Your task to perform on an android device: Open privacy settings Image 0: 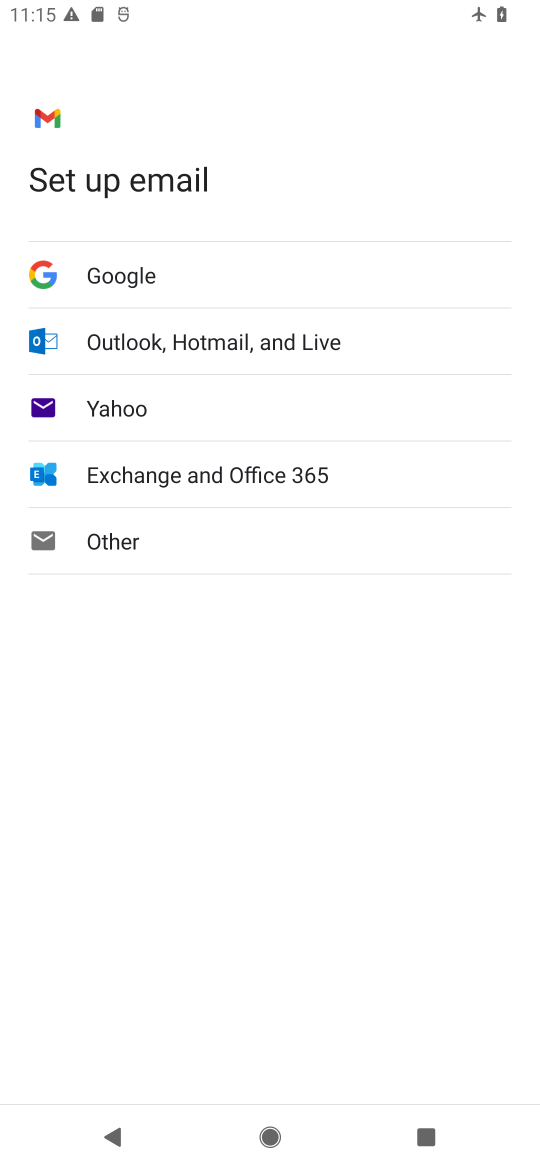
Step 0: press home button
Your task to perform on an android device: Open privacy settings Image 1: 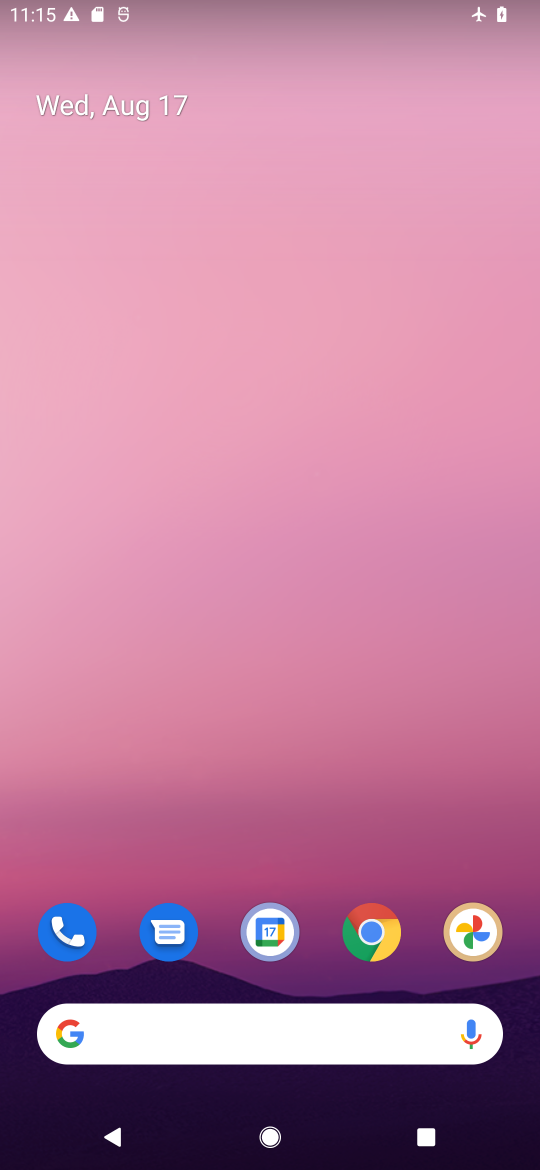
Step 1: drag from (245, 857) to (237, 178)
Your task to perform on an android device: Open privacy settings Image 2: 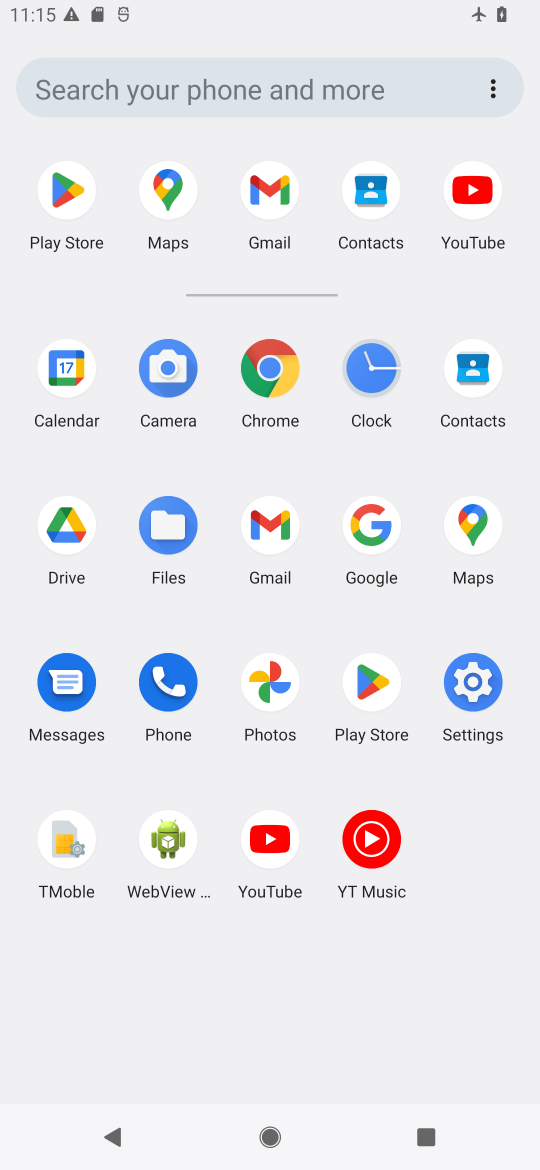
Step 2: click (456, 673)
Your task to perform on an android device: Open privacy settings Image 3: 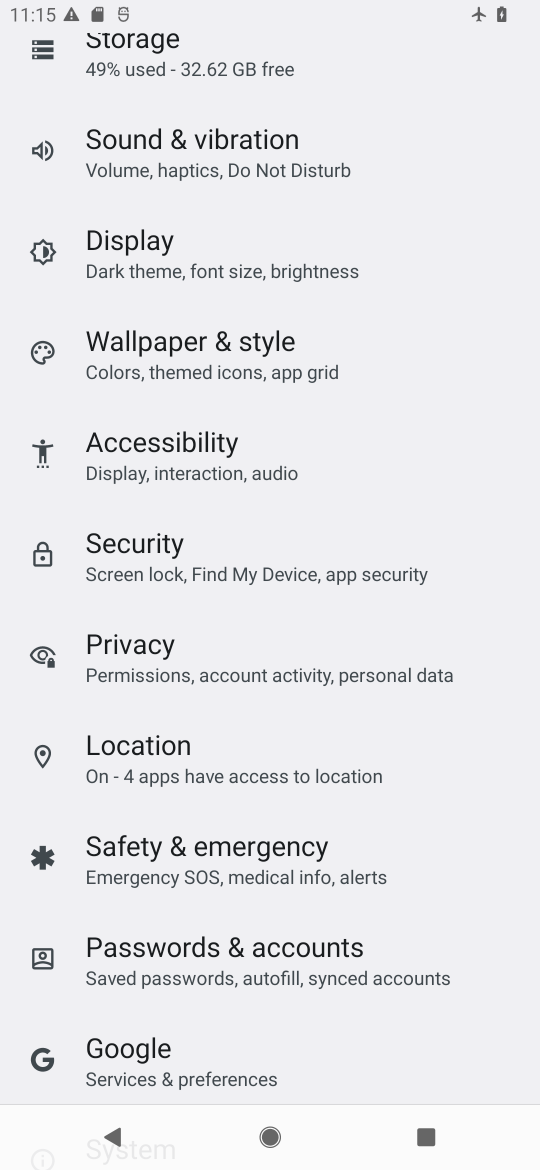
Step 3: click (166, 655)
Your task to perform on an android device: Open privacy settings Image 4: 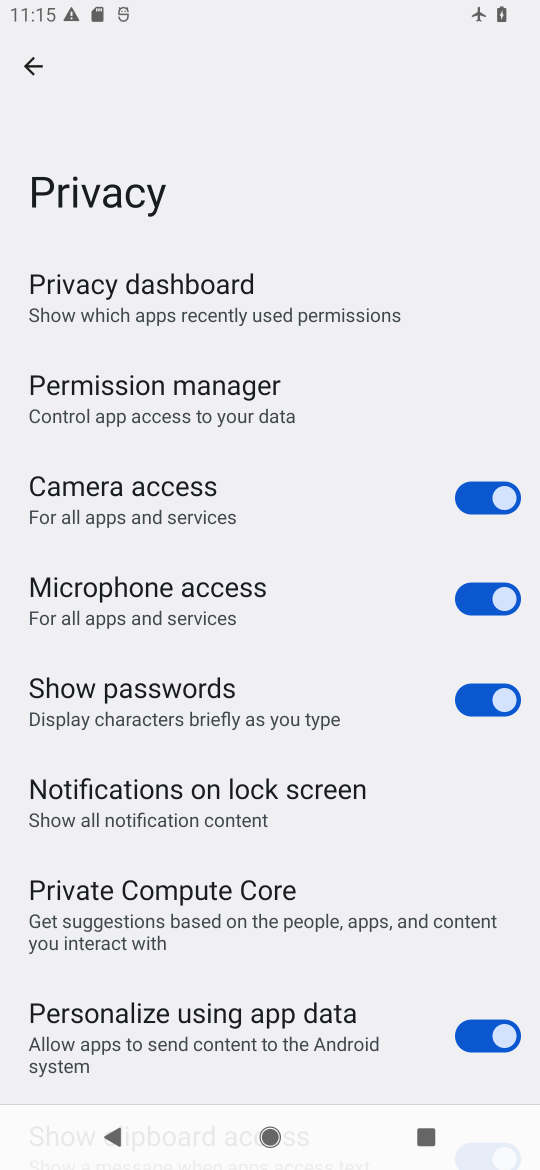
Step 4: task complete